Your task to perform on an android device: open chrome and create a bookmark for the current page Image 0: 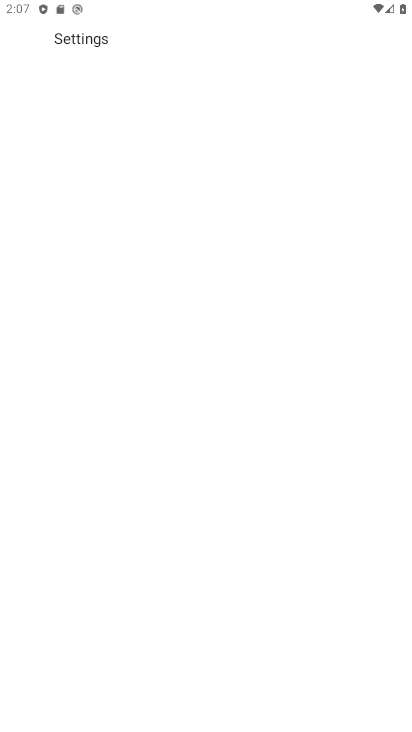
Step 0: drag from (288, 607) to (243, 79)
Your task to perform on an android device: open chrome and create a bookmark for the current page Image 1: 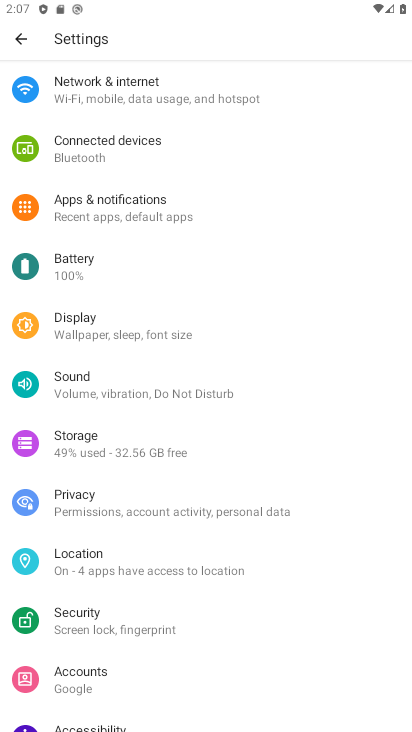
Step 1: drag from (122, 188) to (135, 475)
Your task to perform on an android device: open chrome and create a bookmark for the current page Image 2: 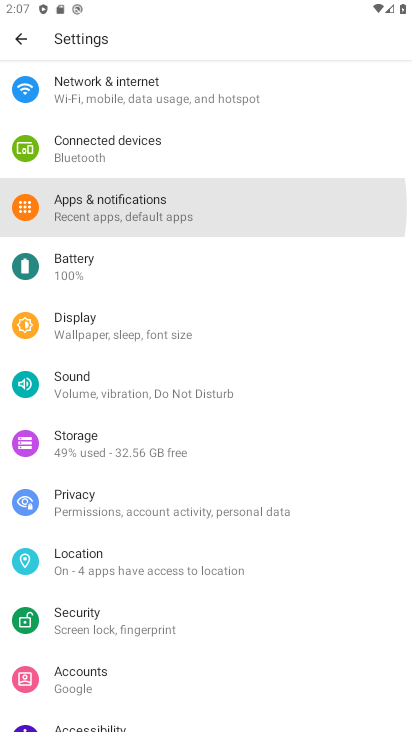
Step 2: drag from (250, 530) to (313, 530)
Your task to perform on an android device: open chrome and create a bookmark for the current page Image 3: 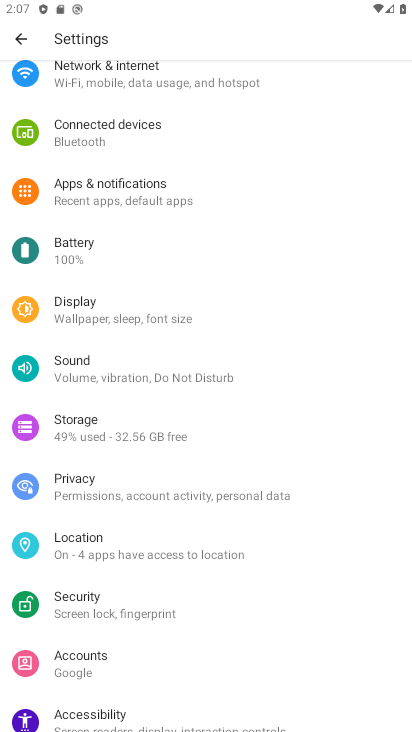
Step 3: drag from (136, 237) to (167, 509)
Your task to perform on an android device: open chrome and create a bookmark for the current page Image 4: 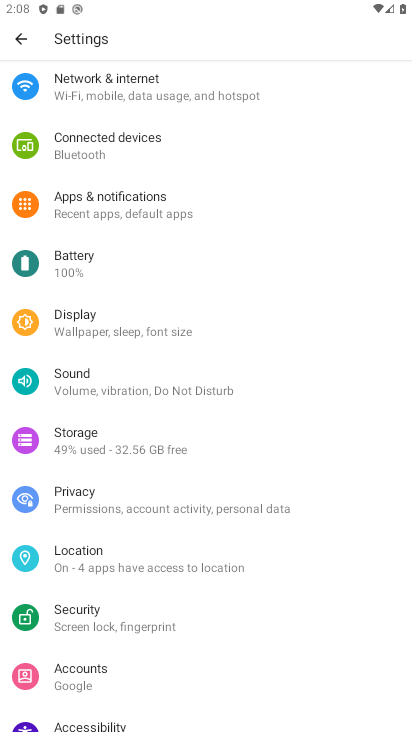
Step 4: click (190, 309)
Your task to perform on an android device: open chrome and create a bookmark for the current page Image 5: 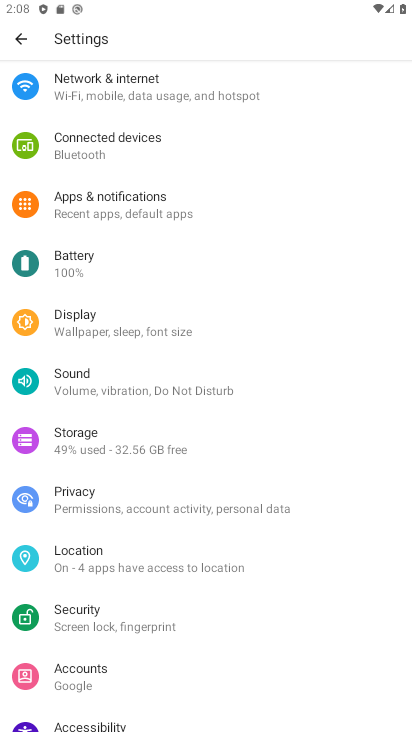
Step 5: click (229, 435)
Your task to perform on an android device: open chrome and create a bookmark for the current page Image 6: 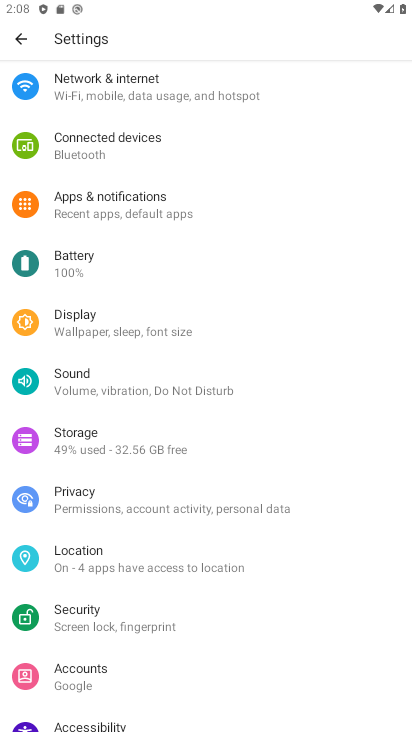
Step 6: drag from (227, 272) to (200, 436)
Your task to perform on an android device: open chrome and create a bookmark for the current page Image 7: 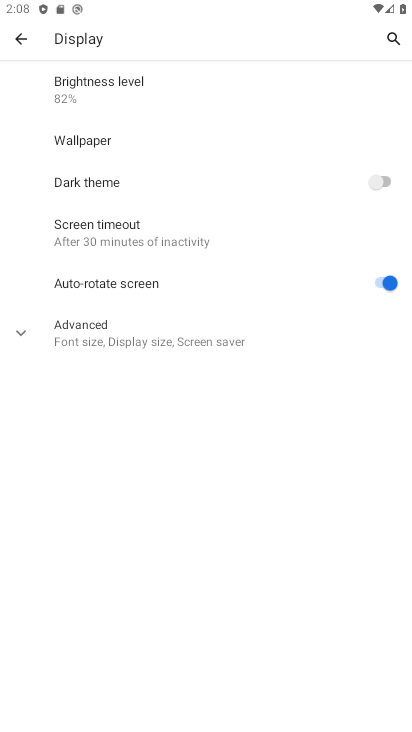
Step 7: click (19, 32)
Your task to perform on an android device: open chrome and create a bookmark for the current page Image 8: 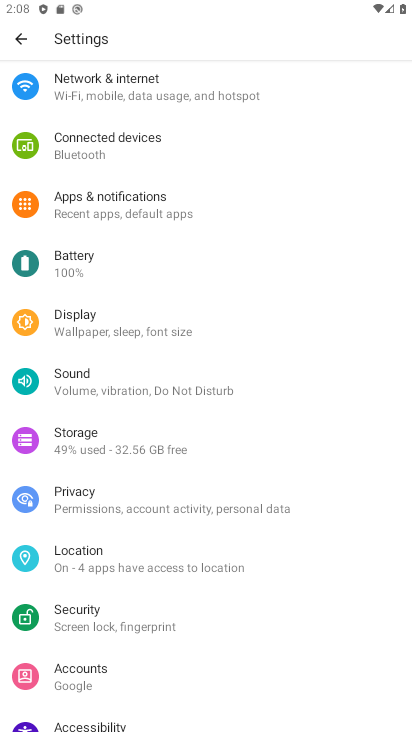
Step 8: drag from (106, 190) to (202, 495)
Your task to perform on an android device: open chrome and create a bookmark for the current page Image 9: 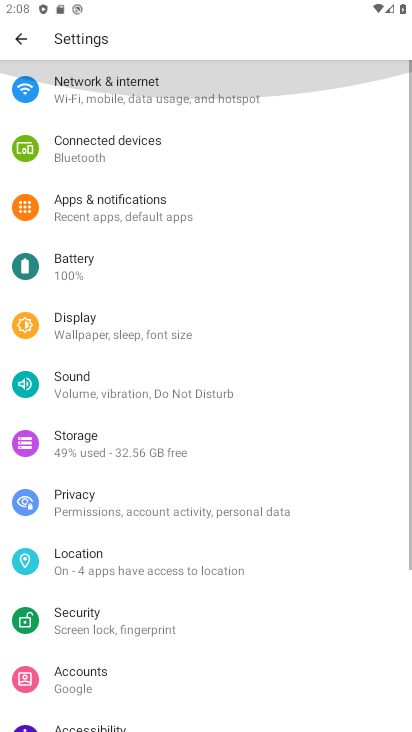
Step 9: drag from (151, 404) to (163, 447)
Your task to perform on an android device: open chrome and create a bookmark for the current page Image 10: 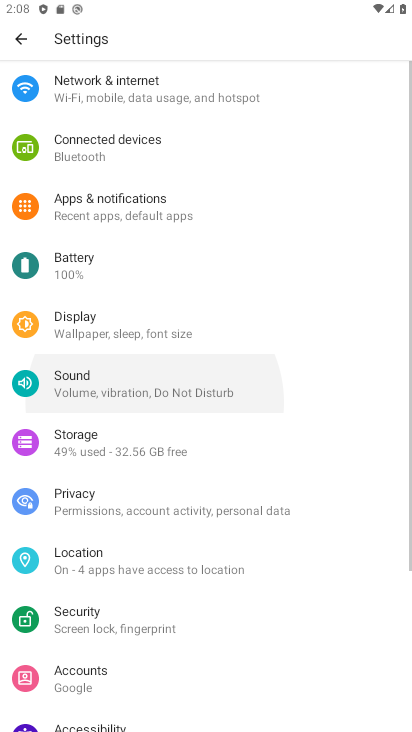
Step 10: drag from (98, 281) to (194, 513)
Your task to perform on an android device: open chrome and create a bookmark for the current page Image 11: 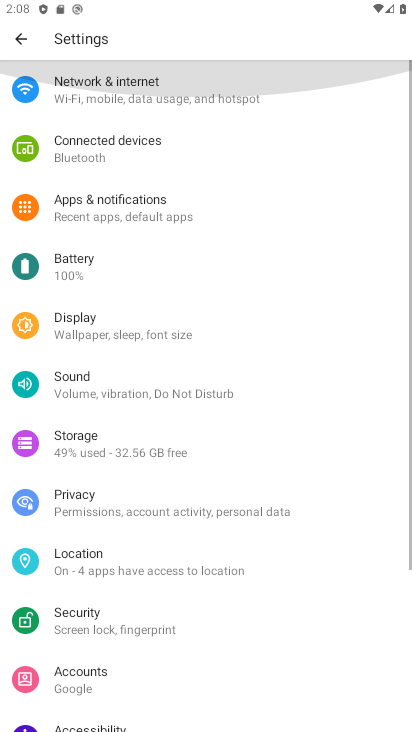
Step 11: drag from (133, 218) to (157, 439)
Your task to perform on an android device: open chrome and create a bookmark for the current page Image 12: 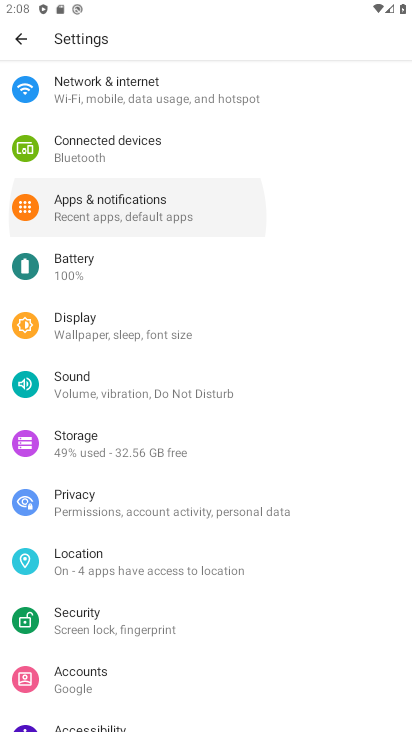
Step 12: click (147, 410)
Your task to perform on an android device: open chrome and create a bookmark for the current page Image 13: 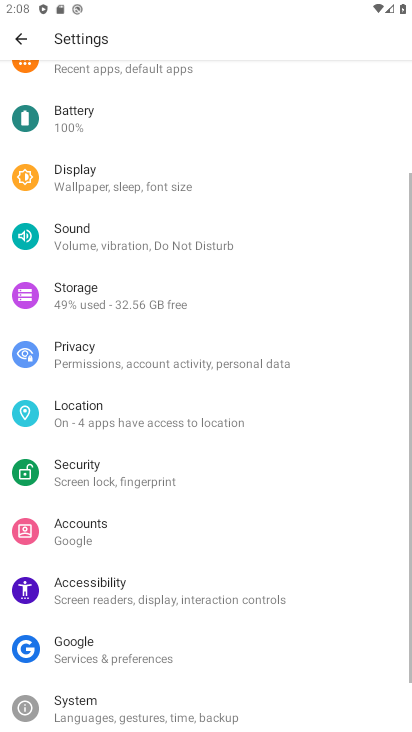
Step 13: click (150, 466)
Your task to perform on an android device: open chrome and create a bookmark for the current page Image 14: 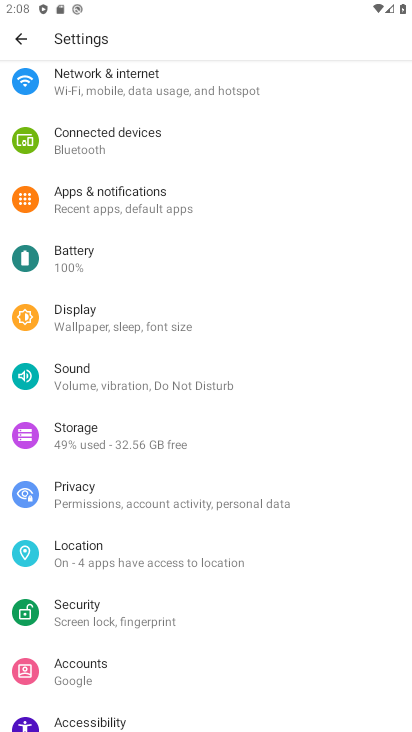
Step 14: click (109, 81)
Your task to perform on an android device: open chrome and create a bookmark for the current page Image 15: 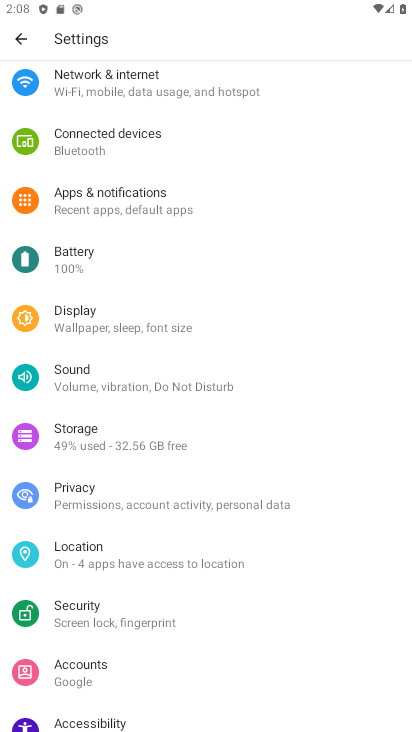
Step 15: click (106, 69)
Your task to perform on an android device: open chrome and create a bookmark for the current page Image 16: 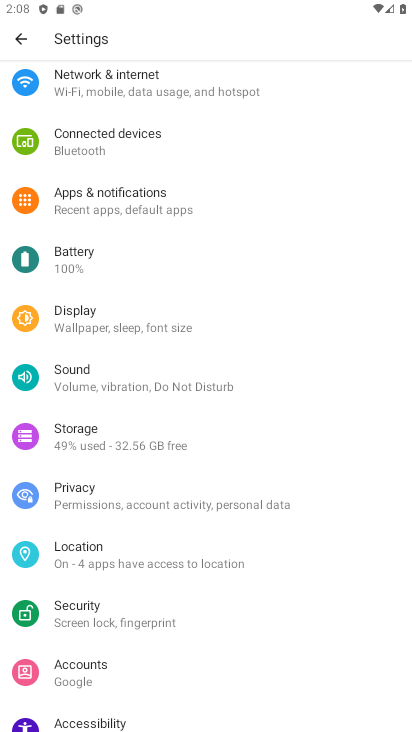
Step 16: click (118, 93)
Your task to perform on an android device: open chrome and create a bookmark for the current page Image 17: 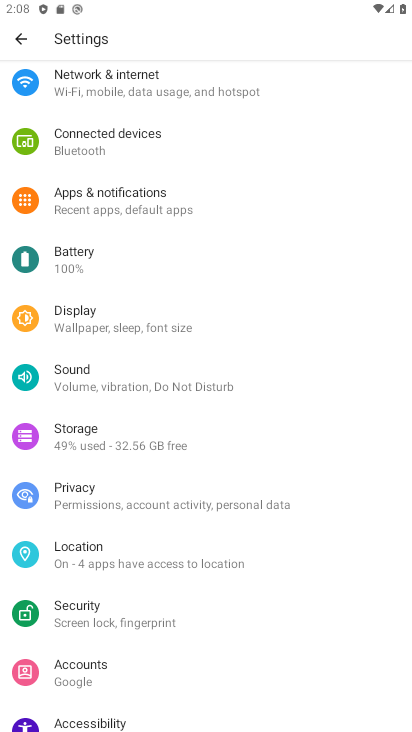
Step 17: click (118, 93)
Your task to perform on an android device: open chrome and create a bookmark for the current page Image 18: 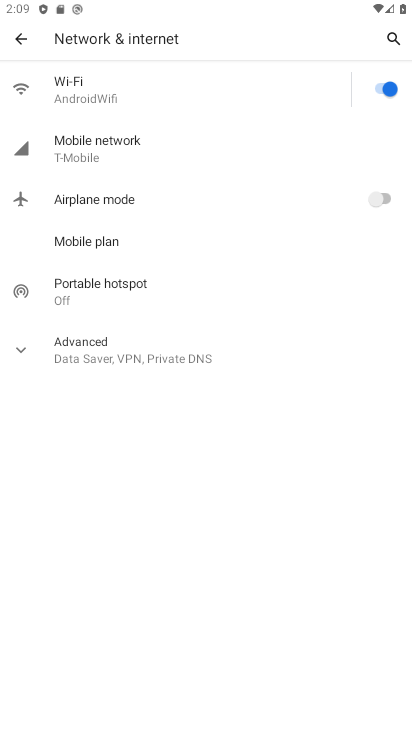
Step 18: click (17, 43)
Your task to perform on an android device: open chrome and create a bookmark for the current page Image 19: 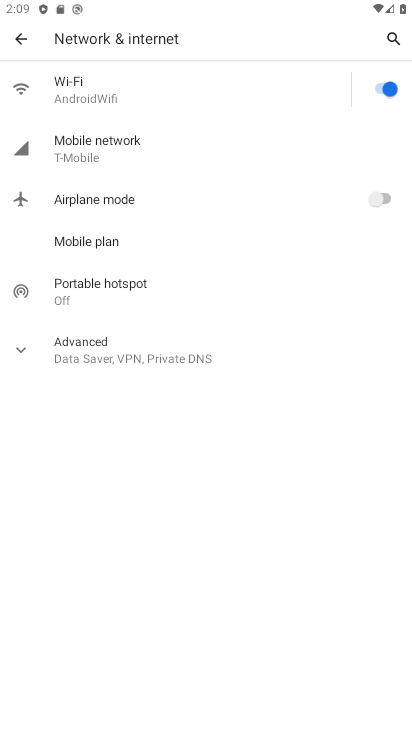
Step 19: click (17, 43)
Your task to perform on an android device: open chrome and create a bookmark for the current page Image 20: 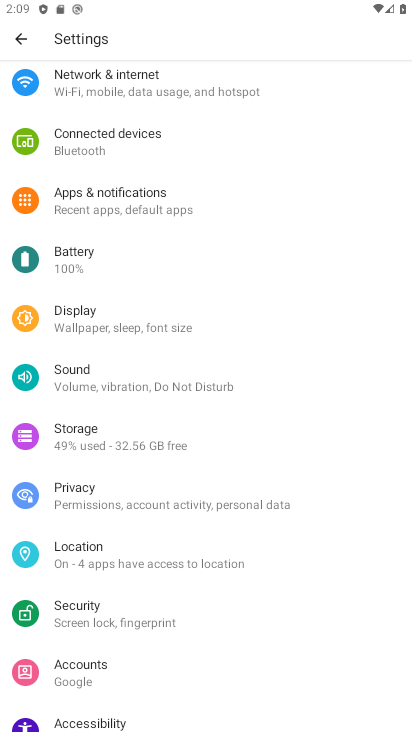
Step 20: press home button
Your task to perform on an android device: open chrome and create a bookmark for the current page Image 21: 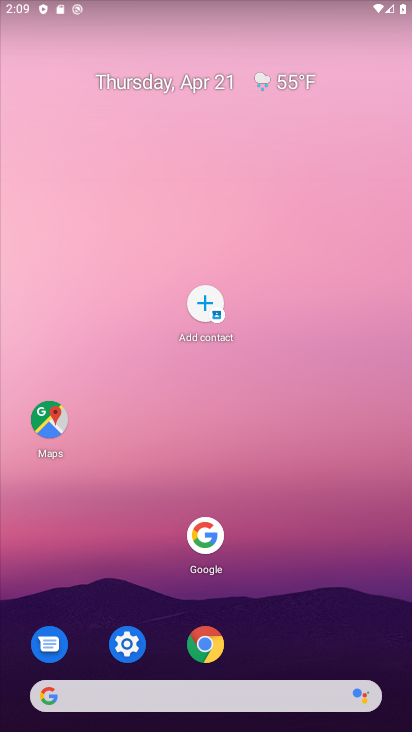
Step 21: drag from (321, 647) to (113, 38)
Your task to perform on an android device: open chrome and create a bookmark for the current page Image 22: 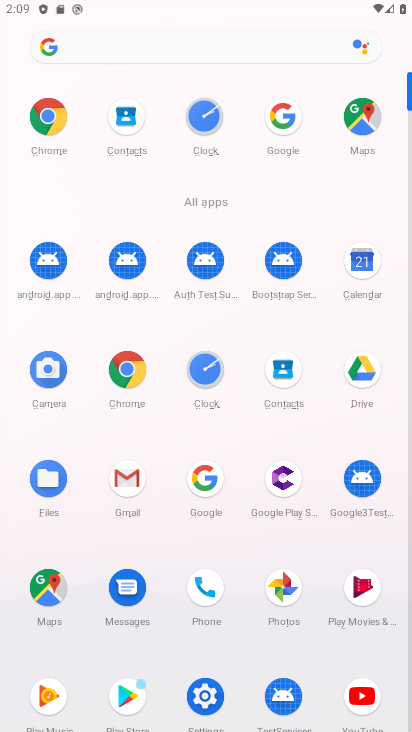
Step 22: click (129, 380)
Your task to perform on an android device: open chrome and create a bookmark for the current page Image 23: 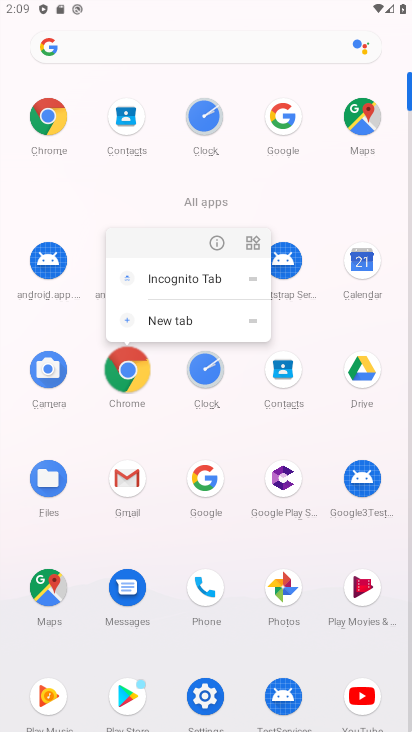
Step 23: click (128, 379)
Your task to perform on an android device: open chrome and create a bookmark for the current page Image 24: 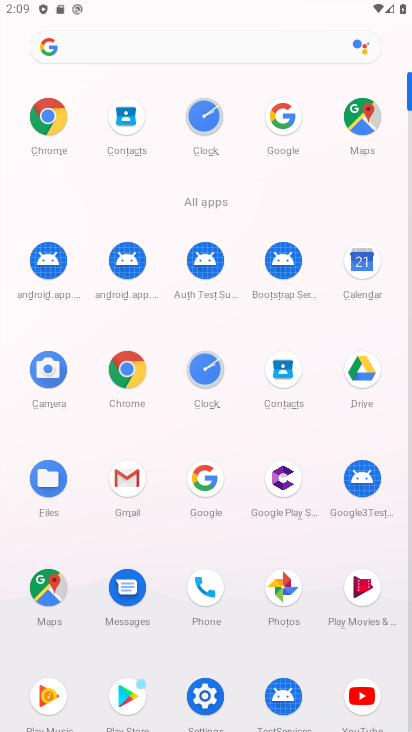
Step 24: click (128, 379)
Your task to perform on an android device: open chrome and create a bookmark for the current page Image 25: 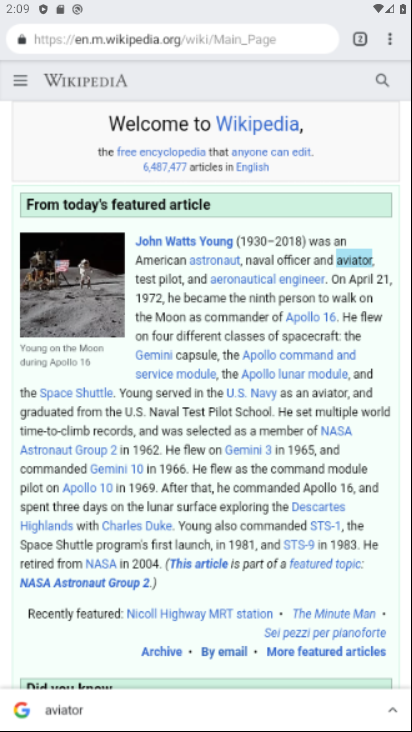
Step 25: click (128, 379)
Your task to perform on an android device: open chrome and create a bookmark for the current page Image 26: 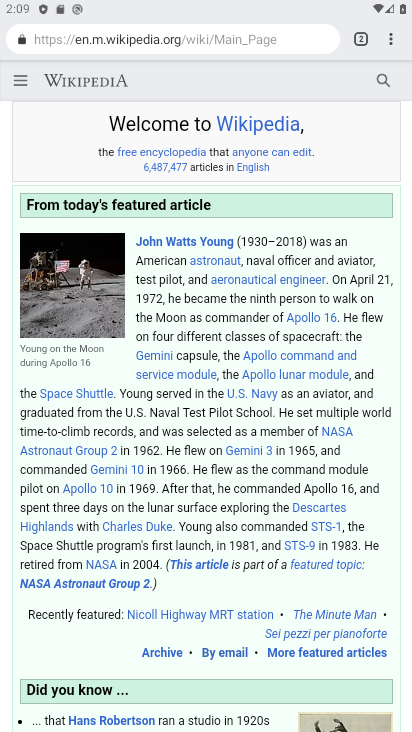
Step 26: drag from (389, 37) to (254, 196)
Your task to perform on an android device: open chrome and create a bookmark for the current page Image 27: 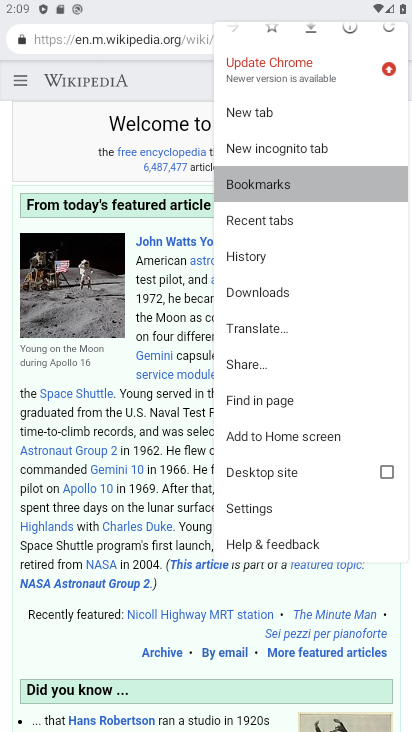
Step 27: click (254, 196)
Your task to perform on an android device: open chrome and create a bookmark for the current page Image 28: 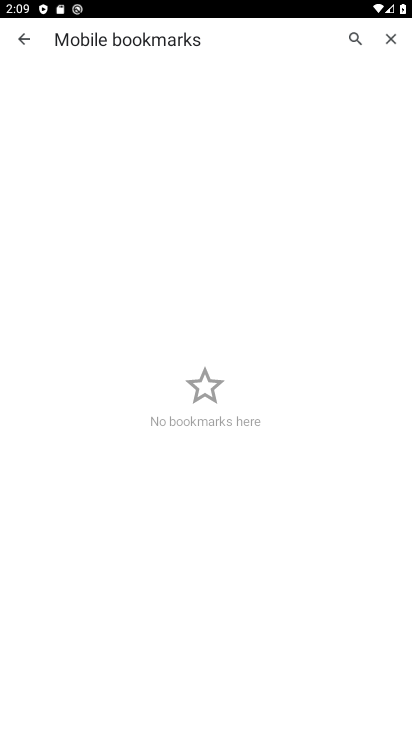
Step 28: task complete